Your task to perform on an android device: find which apps use the phone's location Image 0: 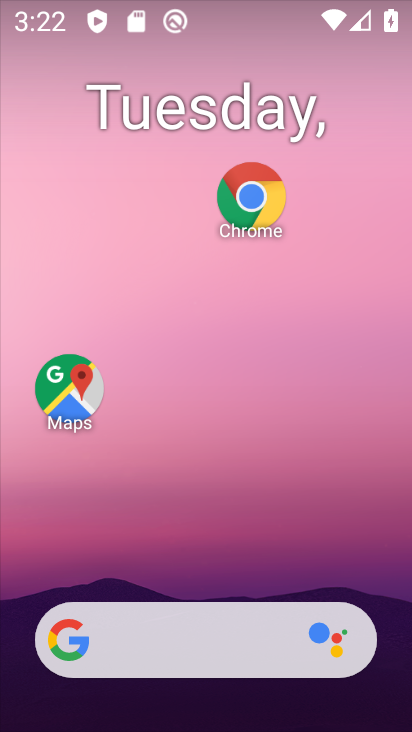
Step 0: drag from (183, 592) to (163, 244)
Your task to perform on an android device: find which apps use the phone's location Image 1: 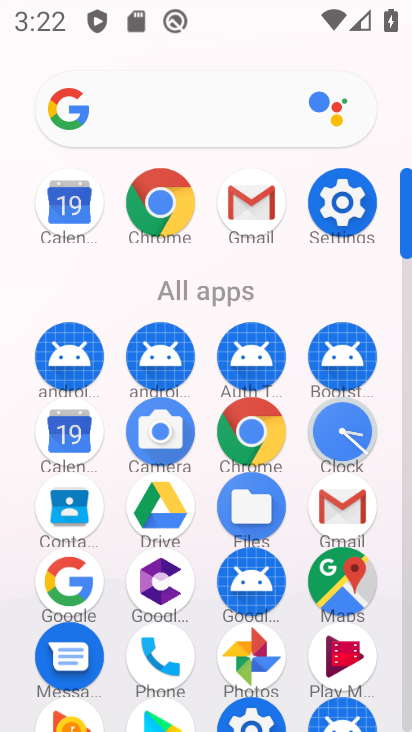
Step 1: click (332, 209)
Your task to perform on an android device: find which apps use the phone's location Image 2: 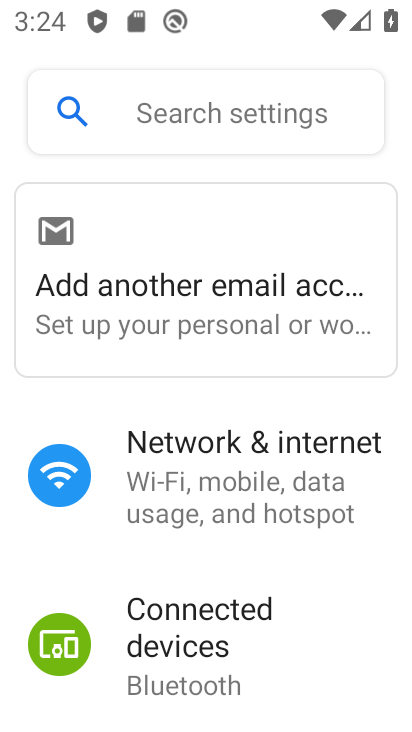
Step 2: drag from (153, 664) to (185, 285)
Your task to perform on an android device: find which apps use the phone's location Image 3: 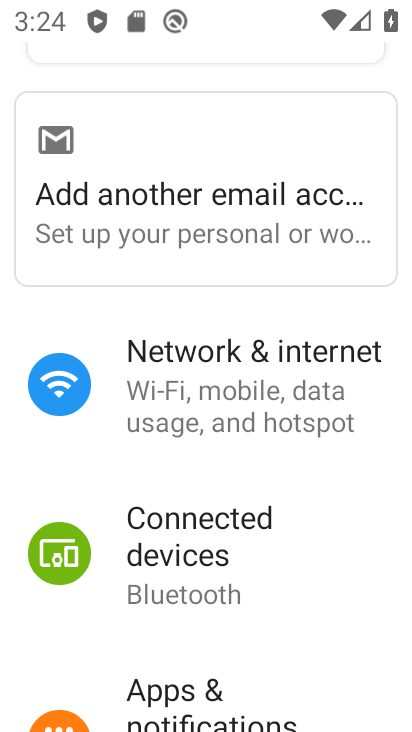
Step 3: drag from (286, 653) to (270, 226)
Your task to perform on an android device: find which apps use the phone's location Image 4: 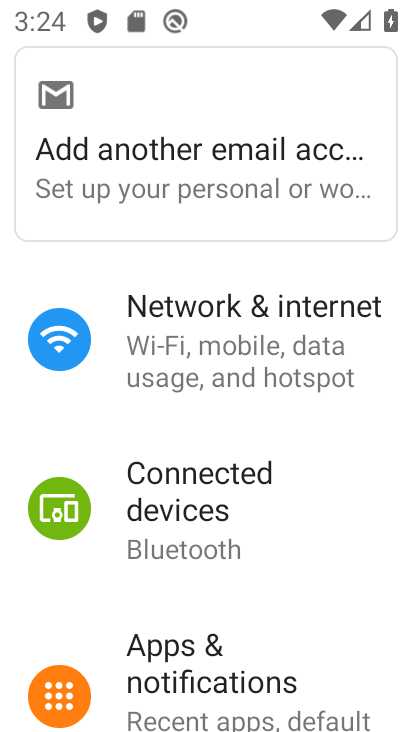
Step 4: drag from (283, 704) to (237, 404)
Your task to perform on an android device: find which apps use the phone's location Image 5: 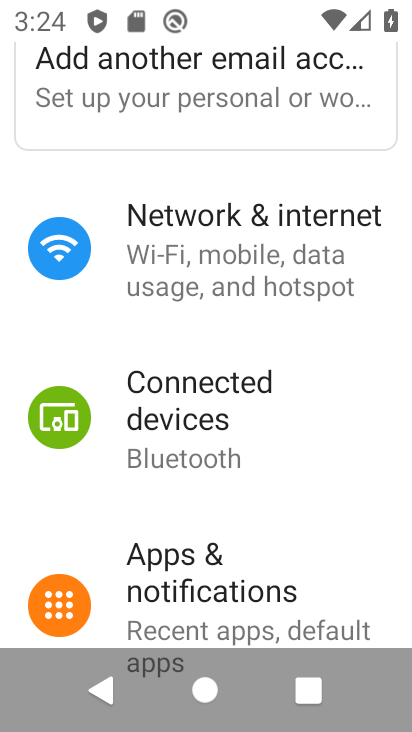
Step 5: drag from (269, 581) to (258, 300)
Your task to perform on an android device: find which apps use the phone's location Image 6: 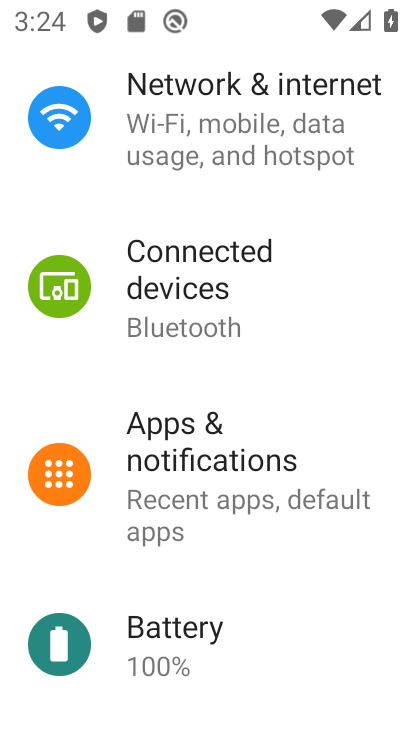
Step 6: drag from (274, 584) to (253, 259)
Your task to perform on an android device: find which apps use the phone's location Image 7: 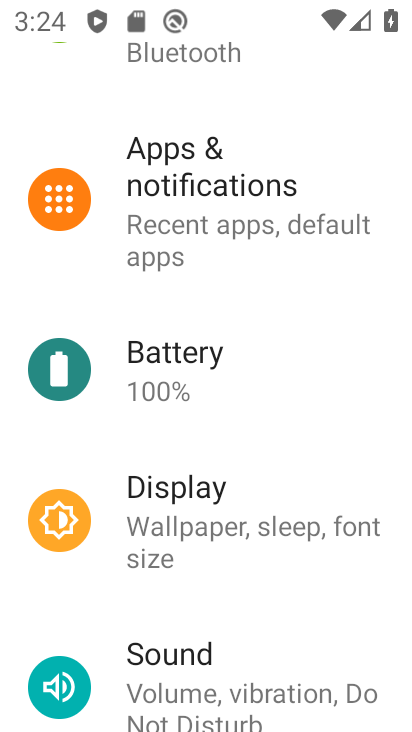
Step 7: drag from (256, 629) to (236, 218)
Your task to perform on an android device: find which apps use the phone's location Image 8: 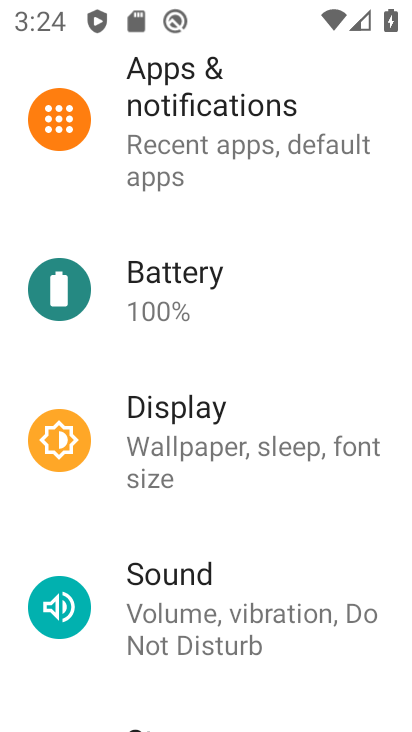
Step 8: drag from (218, 687) to (199, 385)
Your task to perform on an android device: find which apps use the phone's location Image 9: 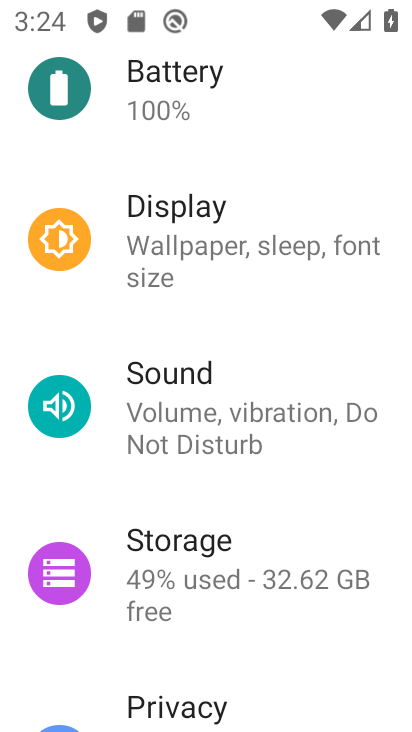
Step 9: drag from (191, 647) to (161, 430)
Your task to perform on an android device: find which apps use the phone's location Image 10: 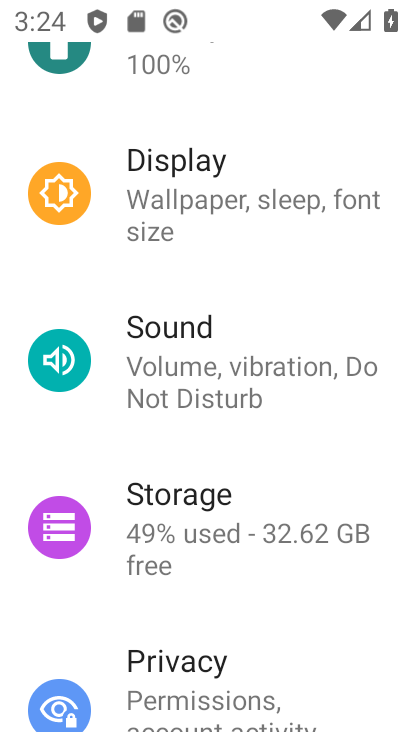
Step 10: drag from (242, 676) to (250, 341)
Your task to perform on an android device: find which apps use the phone's location Image 11: 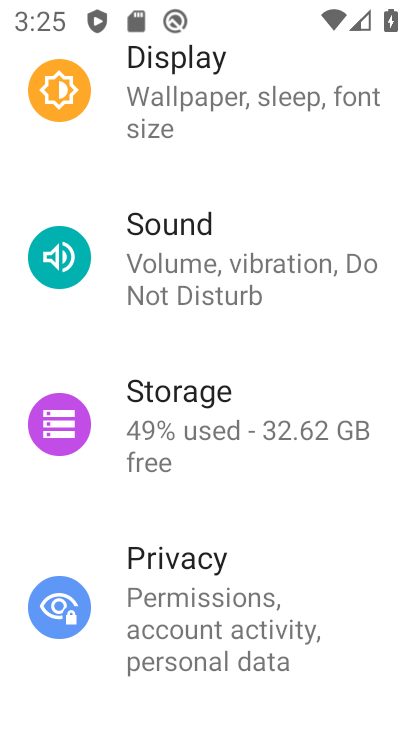
Step 11: drag from (247, 671) to (211, 423)
Your task to perform on an android device: find which apps use the phone's location Image 12: 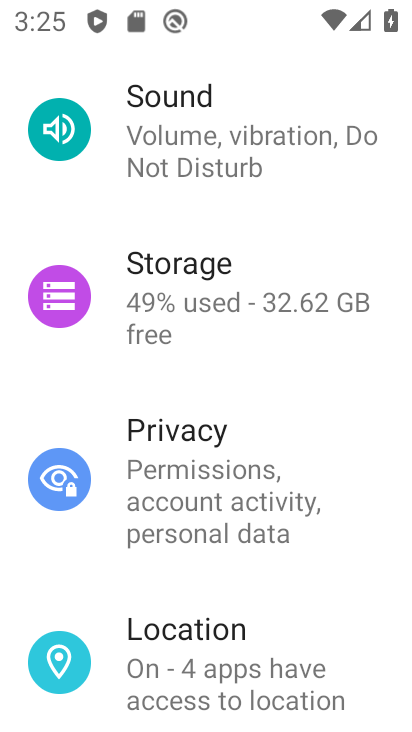
Step 12: click (209, 644)
Your task to perform on an android device: find which apps use the phone's location Image 13: 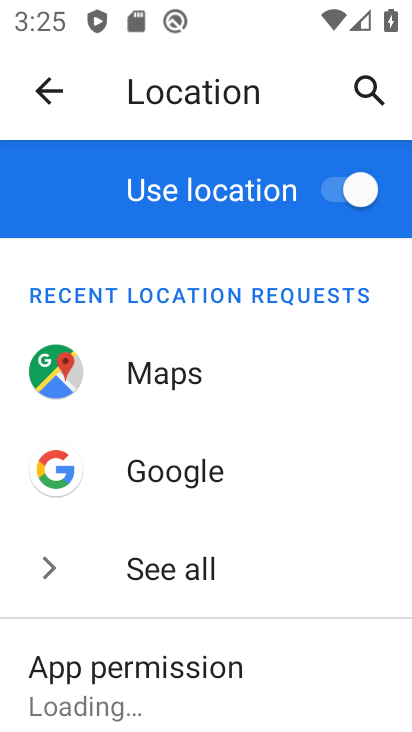
Step 13: drag from (239, 682) to (249, 268)
Your task to perform on an android device: find which apps use the phone's location Image 14: 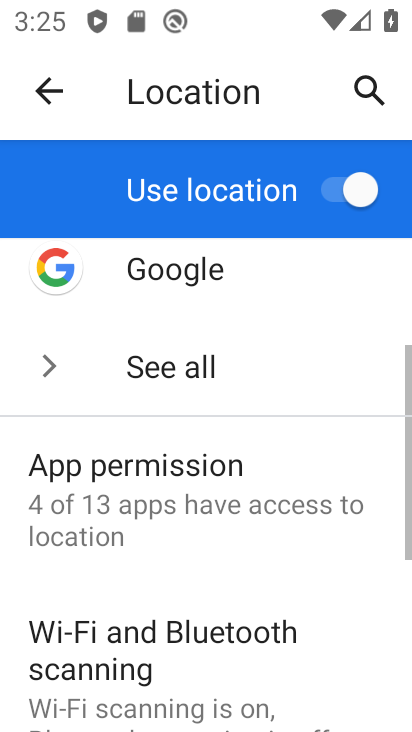
Step 14: drag from (322, 690) to (300, 400)
Your task to perform on an android device: find which apps use the phone's location Image 15: 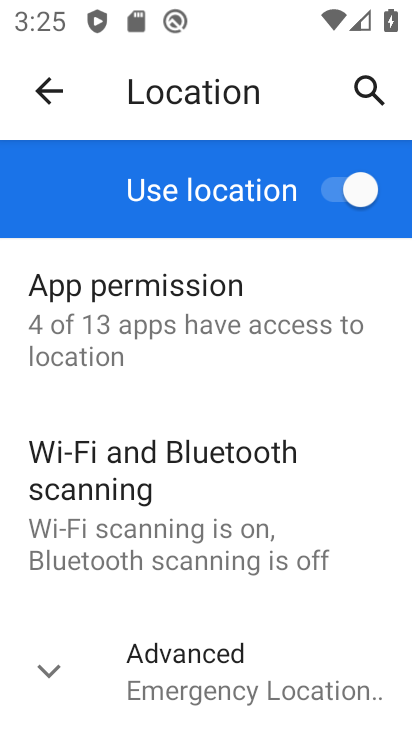
Step 15: click (154, 291)
Your task to perform on an android device: find which apps use the phone's location Image 16: 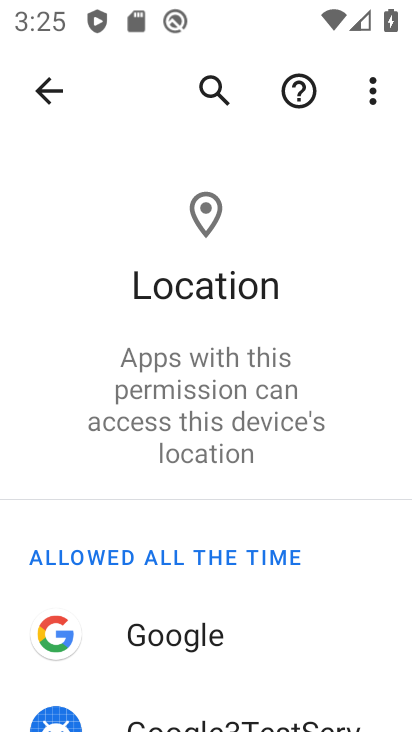
Step 16: task complete